Your task to perform on an android device: Go to sound settings Image 0: 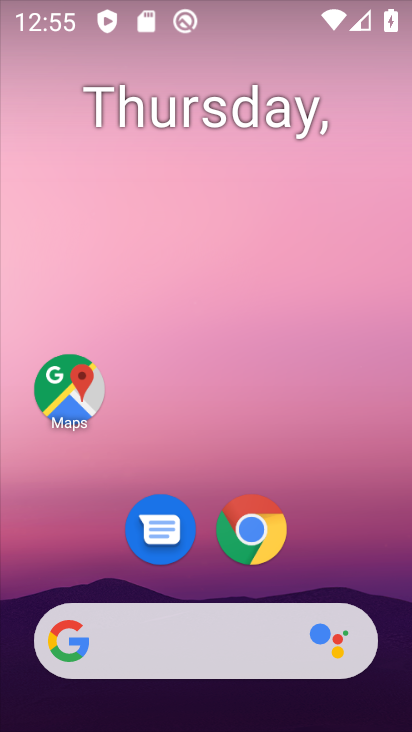
Step 0: drag from (379, 538) to (354, 171)
Your task to perform on an android device: Go to sound settings Image 1: 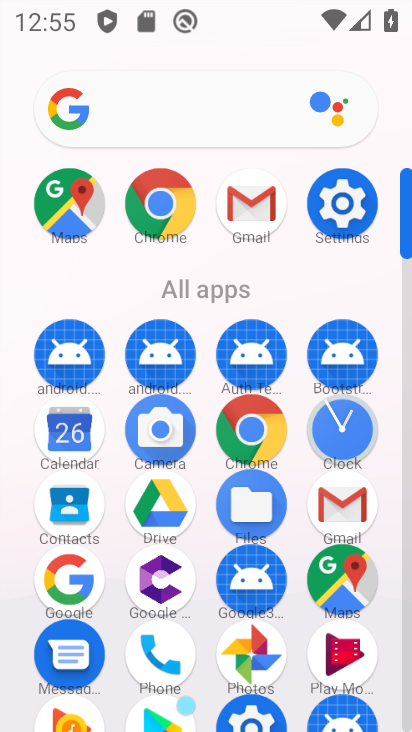
Step 1: click (356, 205)
Your task to perform on an android device: Go to sound settings Image 2: 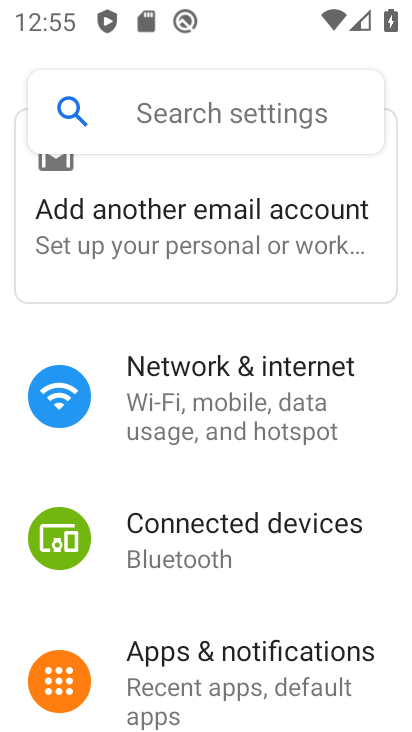
Step 2: drag from (164, 670) to (167, 330)
Your task to perform on an android device: Go to sound settings Image 3: 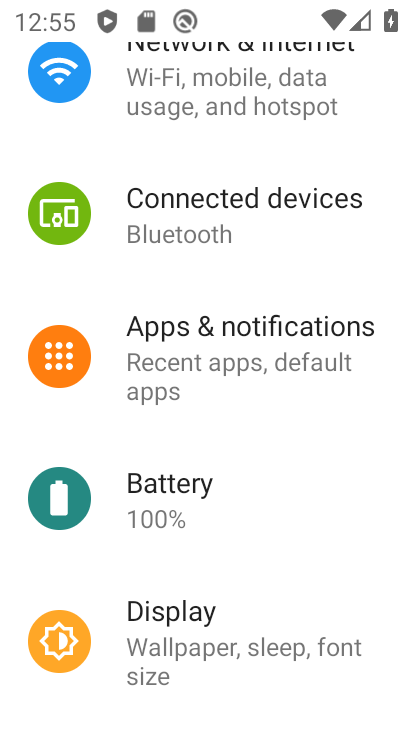
Step 3: drag from (204, 577) to (267, 301)
Your task to perform on an android device: Go to sound settings Image 4: 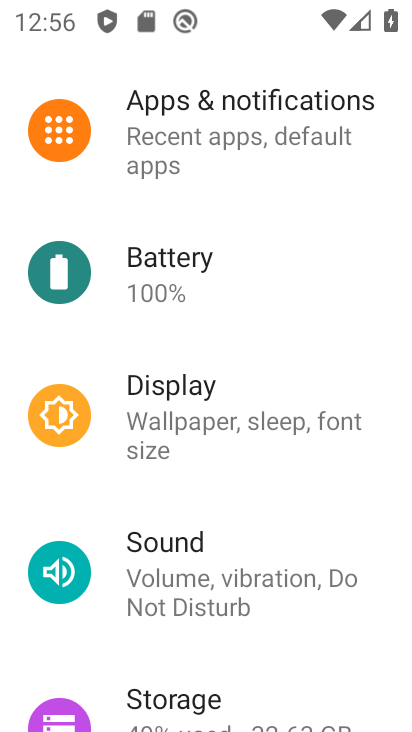
Step 4: click (194, 586)
Your task to perform on an android device: Go to sound settings Image 5: 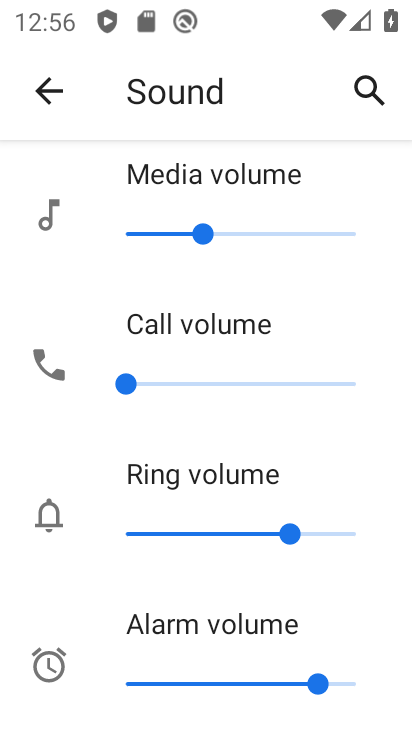
Step 5: task complete